Your task to perform on an android device: Open Google Chrome and click the shortcut for Amazon.com Image 0: 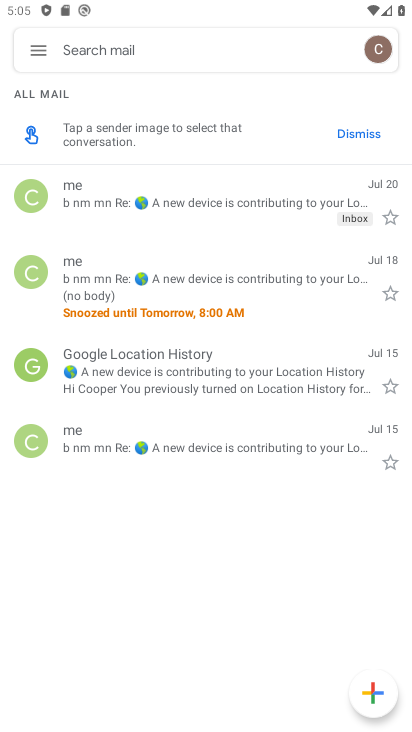
Step 0: press home button
Your task to perform on an android device: Open Google Chrome and click the shortcut for Amazon.com Image 1: 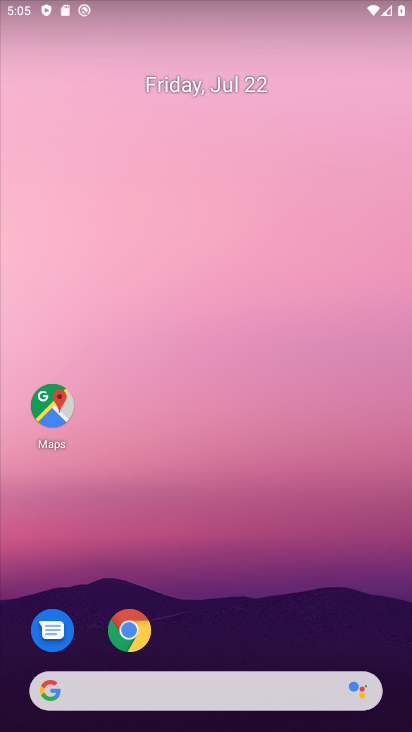
Step 1: click (121, 623)
Your task to perform on an android device: Open Google Chrome and click the shortcut for Amazon.com Image 2: 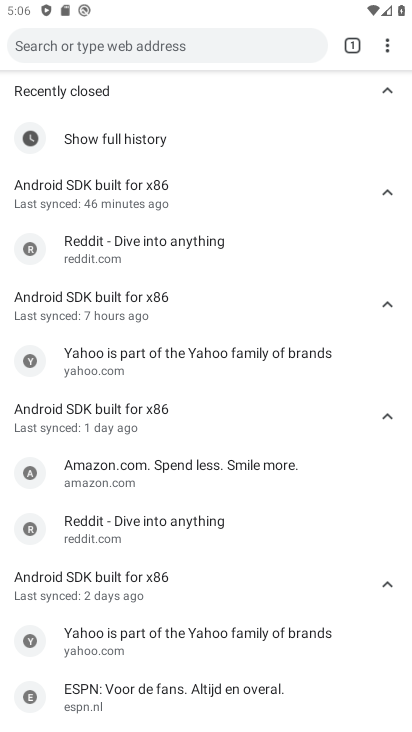
Step 2: press home button
Your task to perform on an android device: Open Google Chrome and click the shortcut for Amazon.com Image 3: 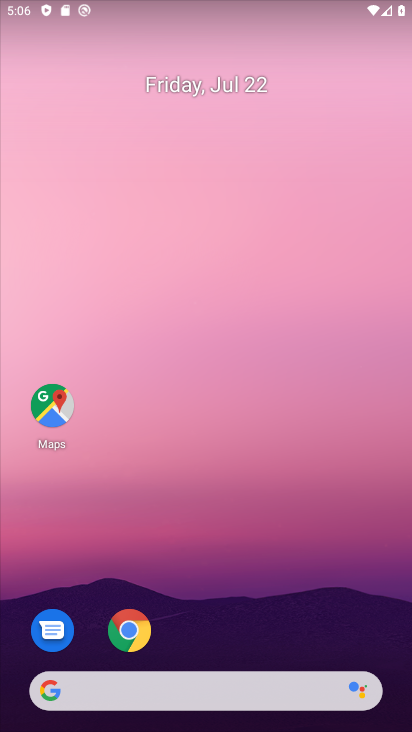
Step 3: click (117, 638)
Your task to perform on an android device: Open Google Chrome and click the shortcut for Amazon.com Image 4: 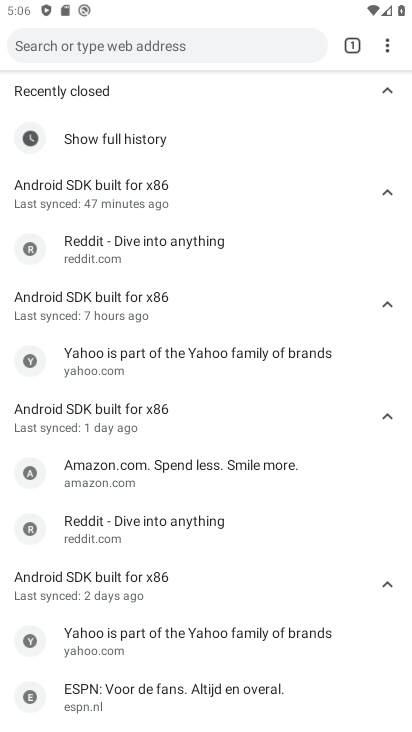
Step 4: click (350, 47)
Your task to perform on an android device: Open Google Chrome and click the shortcut for Amazon.com Image 5: 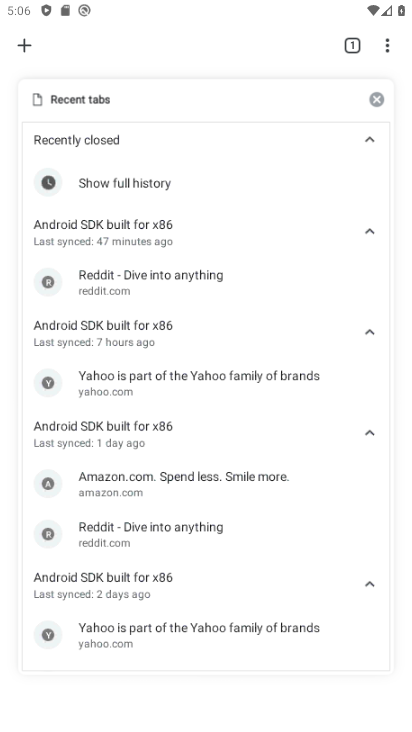
Step 5: click (28, 48)
Your task to perform on an android device: Open Google Chrome and click the shortcut for Amazon.com Image 6: 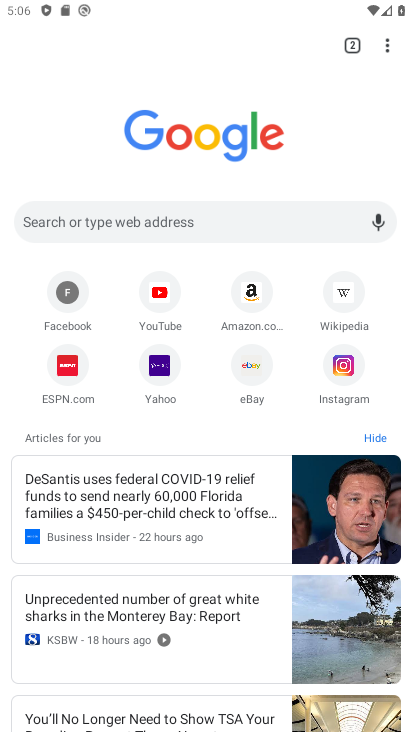
Step 6: click (249, 316)
Your task to perform on an android device: Open Google Chrome and click the shortcut for Amazon.com Image 7: 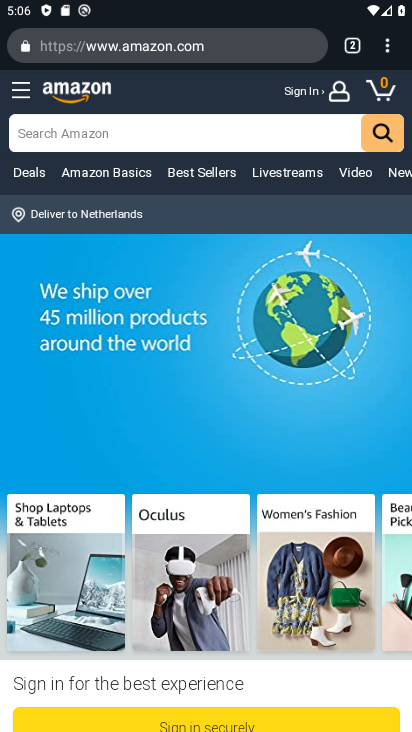
Step 7: task complete